Your task to perform on an android device: Open calendar and show me the fourth week of next month Image 0: 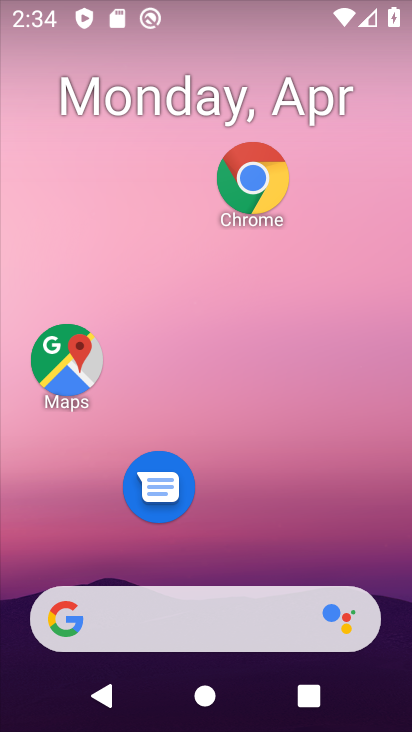
Step 0: drag from (202, 580) to (236, 75)
Your task to perform on an android device: Open calendar and show me the fourth week of next month Image 1: 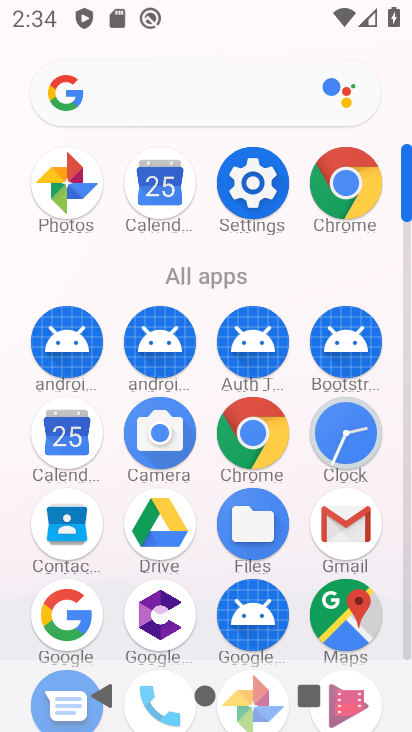
Step 1: click (67, 436)
Your task to perform on an android device: Open calendar and show me the fourth week of next month Image 2: 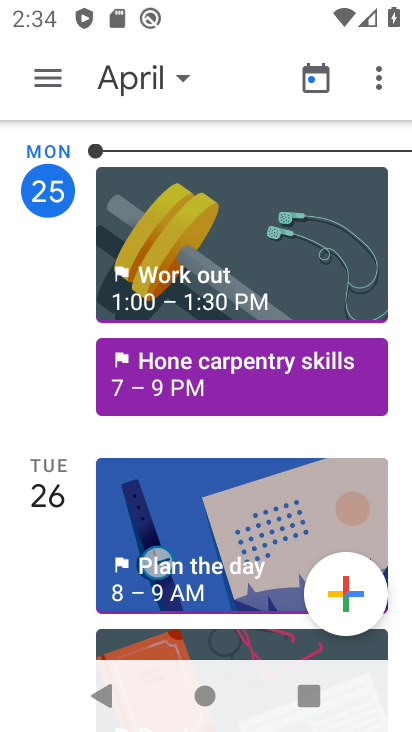
Step 2: click (42, 82)
Your task to perform on an android device: Open calendar and show me the fourth week of next month Image 3: 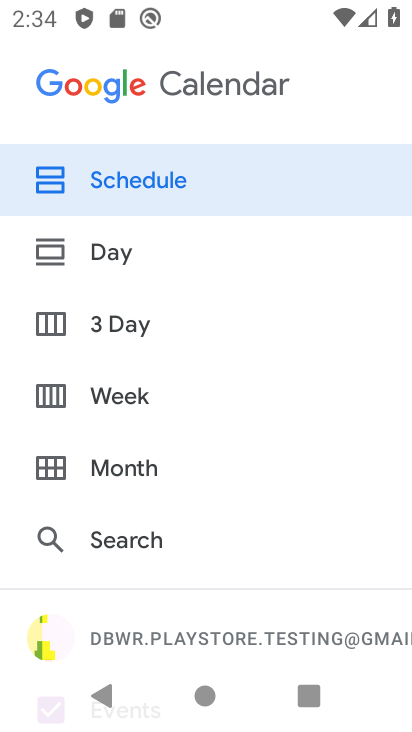
Step 3: click (133, 477)
Your task to perform on an android device: Open calendar and show me the fourth week of next month Image 4: 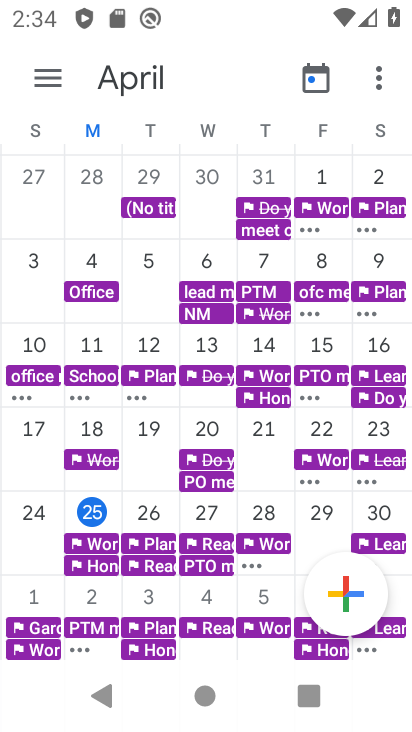
Step 4: drag from (380, 360) to (81, 262)
Your task to perform on an android device: Open calendar and show me the fourth week of next month Image 5: 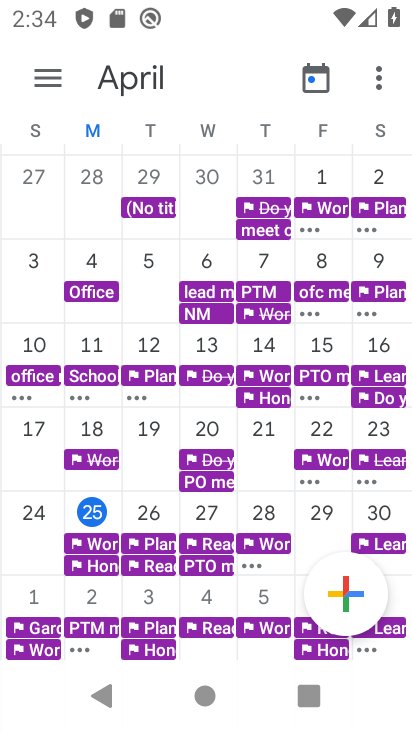
Step 5: drag from (352, 239) to (28, 350)
Your task to perform on an android device: Open calendar and show me the fourth week of next month Image 6: 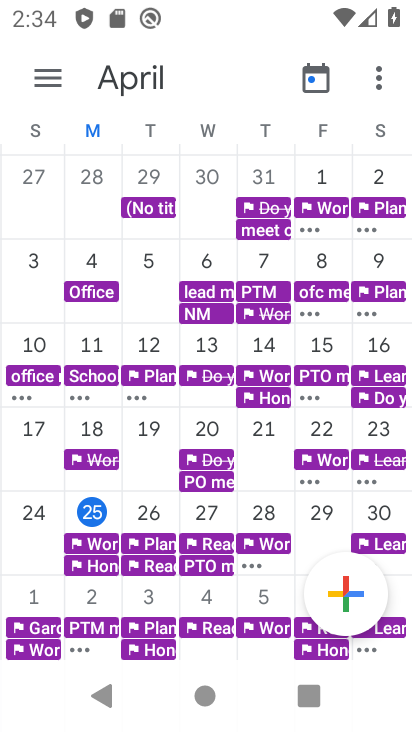
Step 6: drag from (364, 371) to (4, 306)
Your task to perform on an android device: Open calendar and show me the fourth week of next month Image 7: 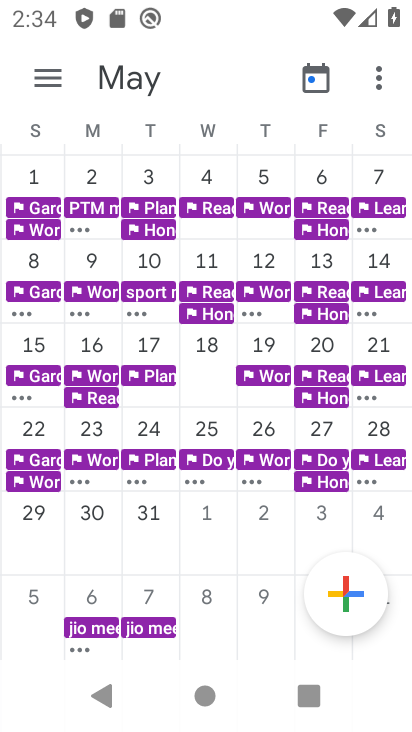
Step 7: click (384, 345)
Your task to perform on an android device: Open calendar and show me the fourth week of next month Image 8: 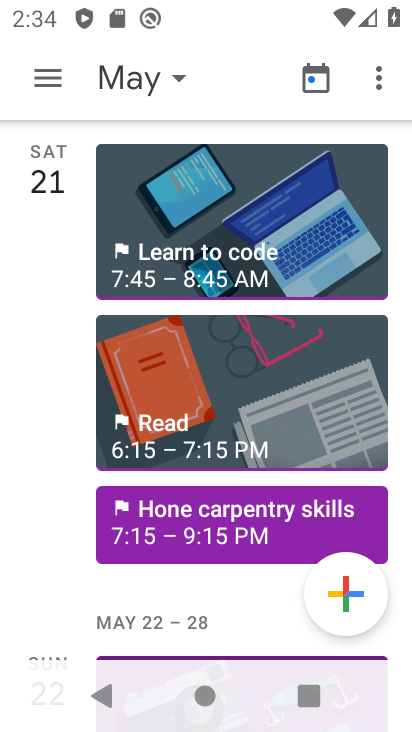
Step 8: task complete